Your task to perform on an android device: Go to Yahoo.com Image 0: 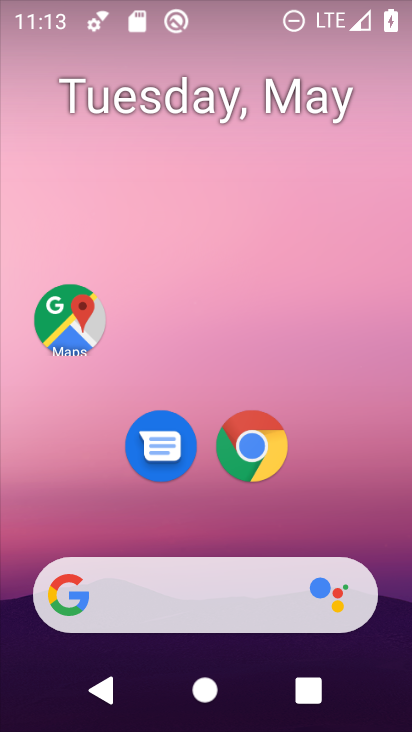
Step 0: click (265, 444)
Your task to perform on an android device: Go to Yahoo.com Image 1: 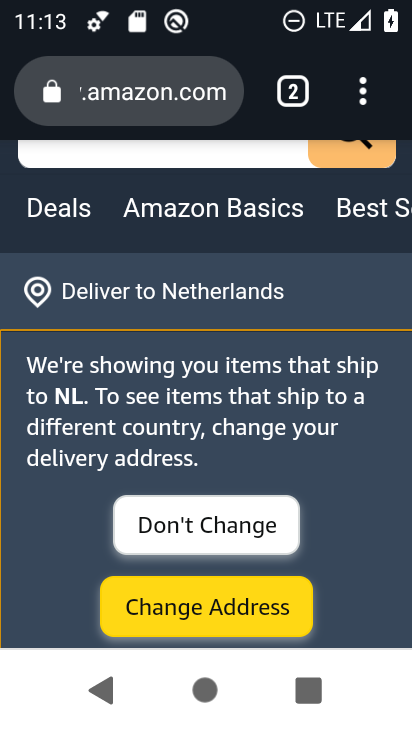
Step 1: click (184, 80)
Your task to perform on an android device: Go to Yahoo.com Image 2: 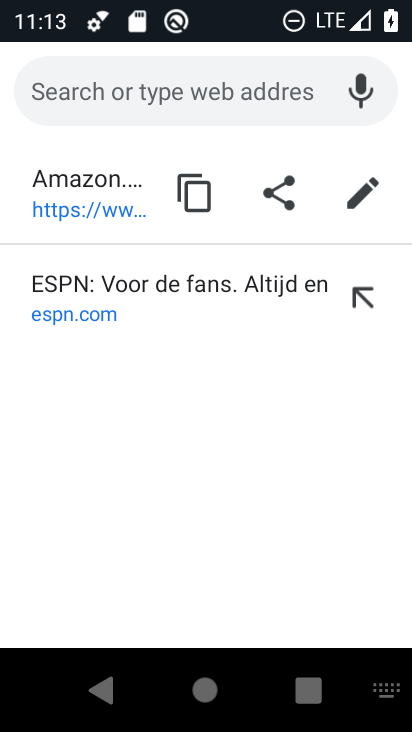
Step 2: type "yahoo.com"
Your task to perform on an android device: Go to Yahoo.com Image 3: 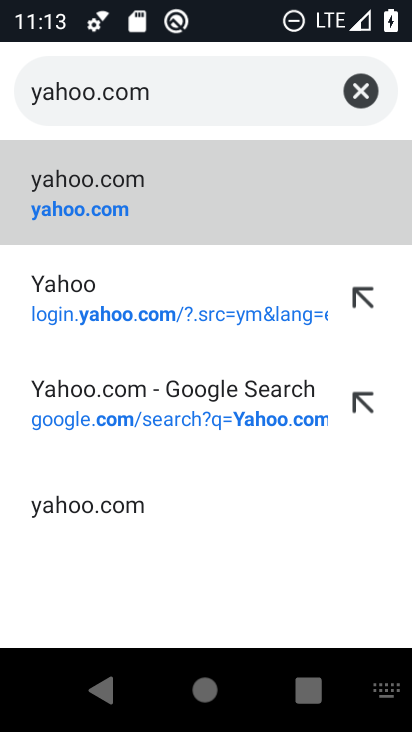
Step 3: click (185, 207)
Your task to perform on an android device: Go to Yahoo.com Image 4: 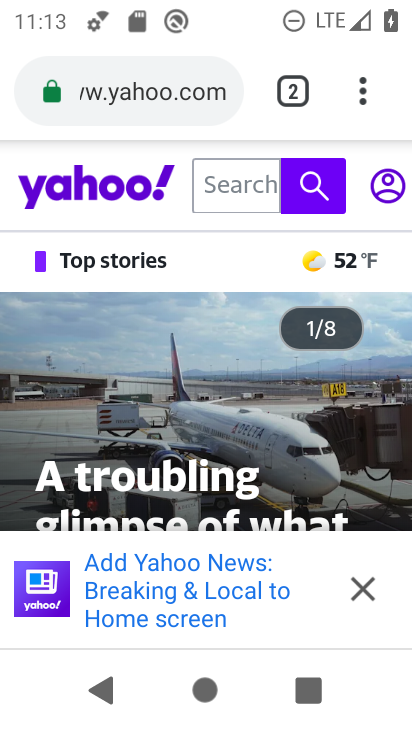
Step 4: task complete